Your task to perform on an android device: Open Yahoo.com Image 0: 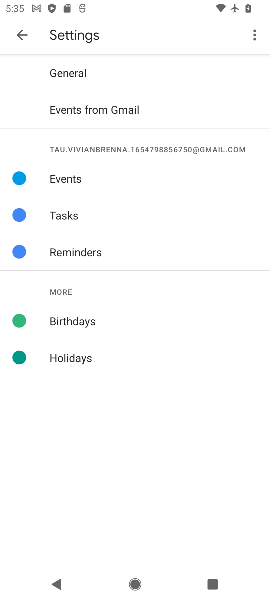
Step 0: press home button
Your task to perform on an android device: Open Yahoo.com Image 1: 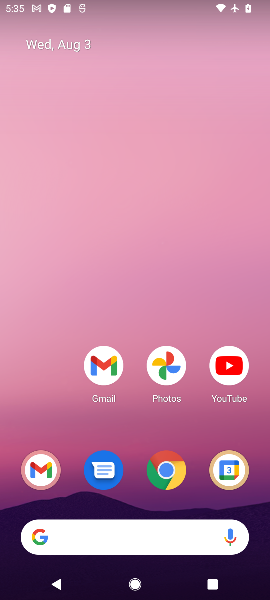
Step 1: drag from (193, 430) to (189, 113)
Your task to perform on an android device: Open Yahoo.com Image 2: 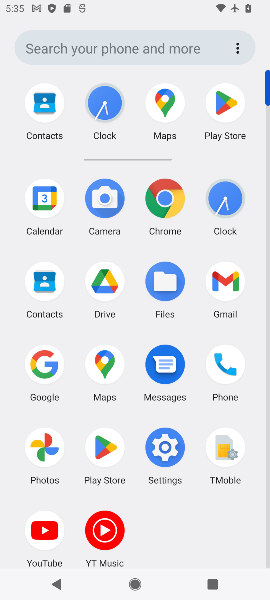
Step 2: click (161, 201)
Your task to perform on an android device: Open Yahoo.com Image 3: 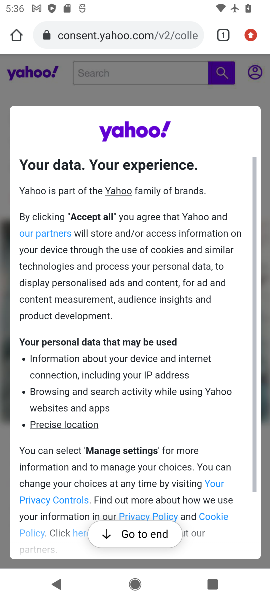
Step 3: task complete